Your task to perform on an android device: turn notification dots off Image 0: 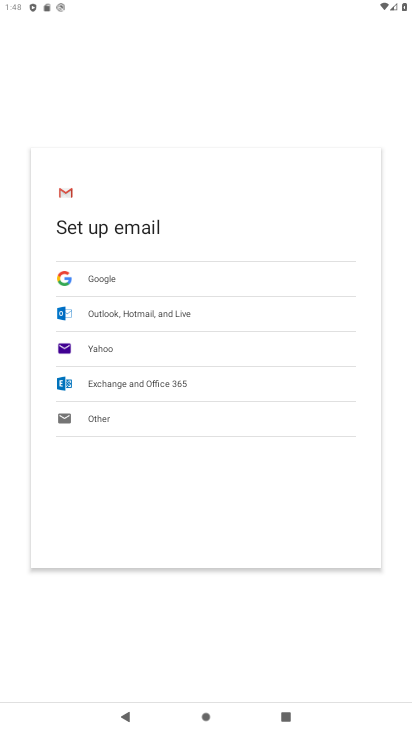
Step 0: press home button
Your task to perform on an android device: turn notification dots off Image 1: 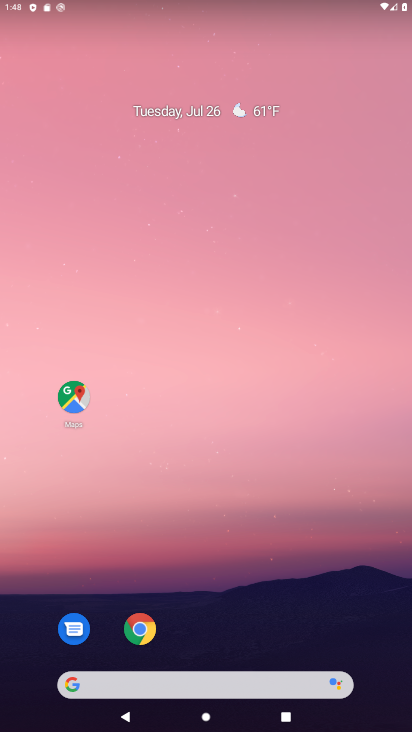
Step 1: drag from (200, 580) to (112, 5)
Your task to perform on an android device: turn notification dots off Image 2: 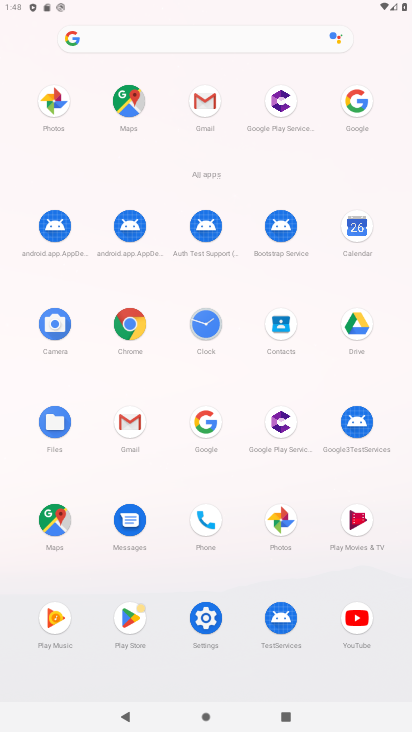
Step 2: click (206, 615)
Your task to perform on an android device: turn notification dots off Image 3: 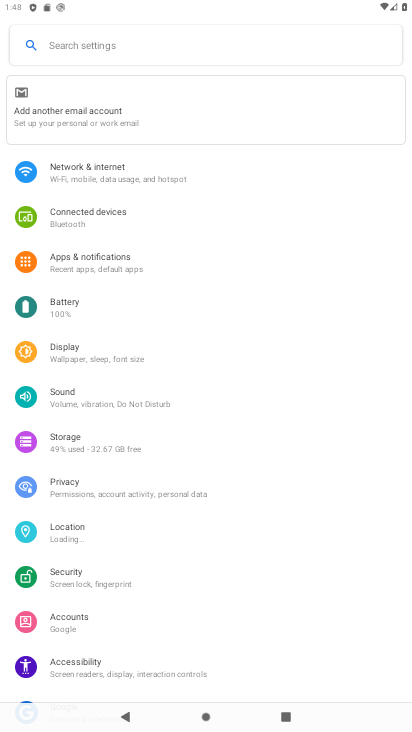
Step 3: click (100, 253)
Your task to perform on an android device: turn notification dots off Image 4: 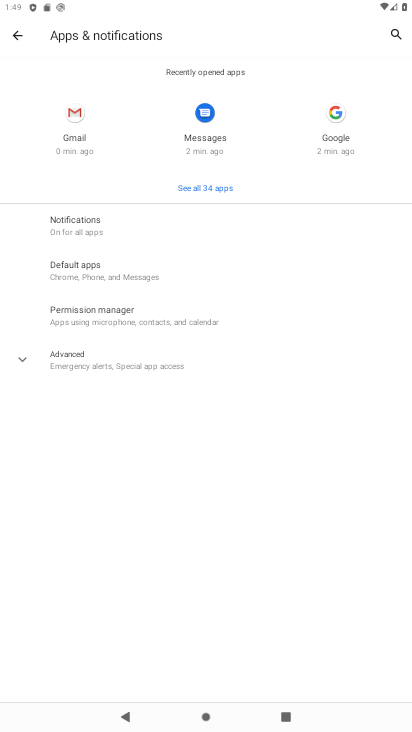
Step 4: click (75, 222)
Your task to perform on an android device: turn notification dots off Image 5: 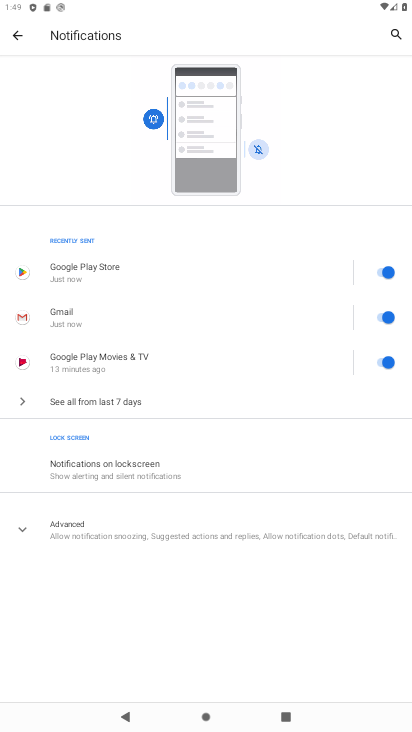
Step 5: click (19, 526)
Your task to perform on an android device: turn notification dots off Image 6: 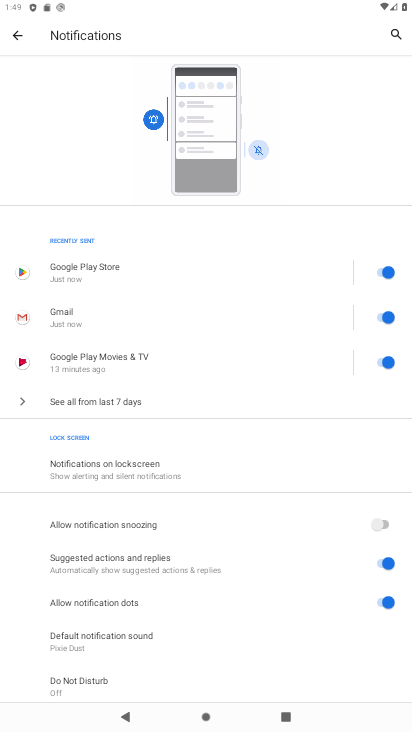
Step 6: click (384, 600)
Your task to perform on an android device: turn notification dots off Image 7: 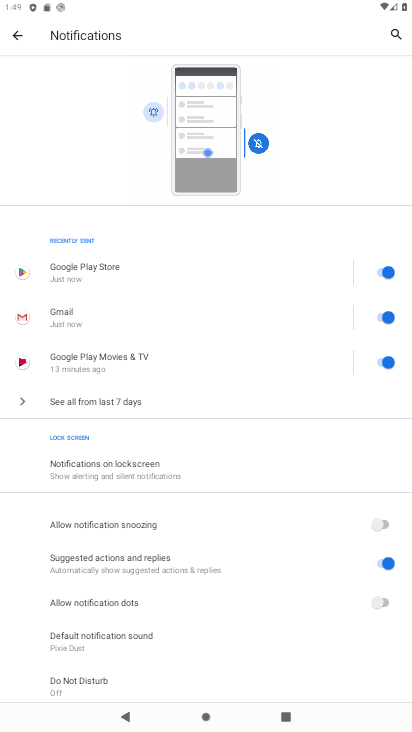
Step 7: task complete